Your task to perform on an android device: change notification settings in the gmail app Image 0: 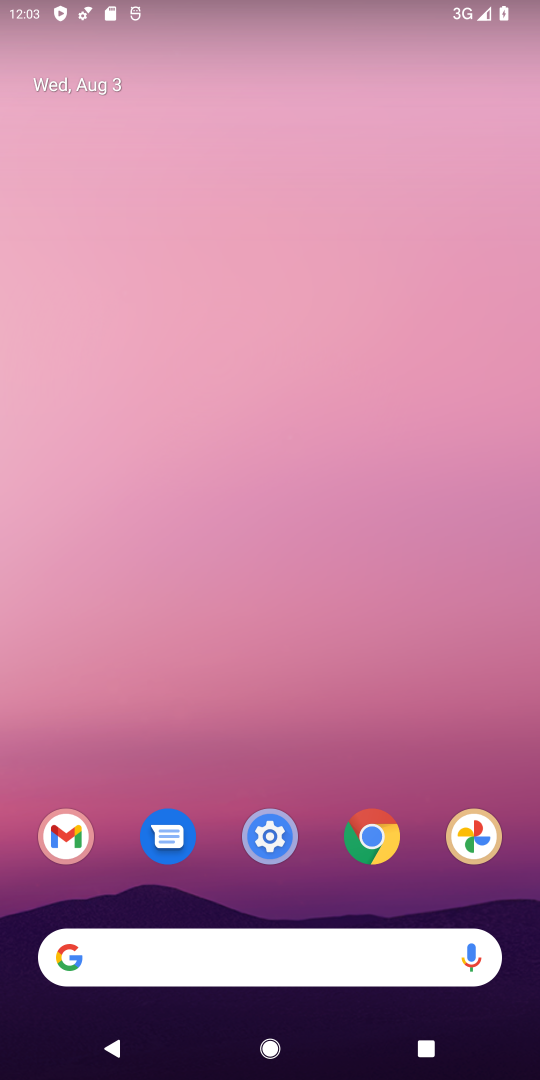
Step 0: drag from (184, 861) to (326, 207)
Your task to perform on an android device: change notification settings in the gmail app Image 1: 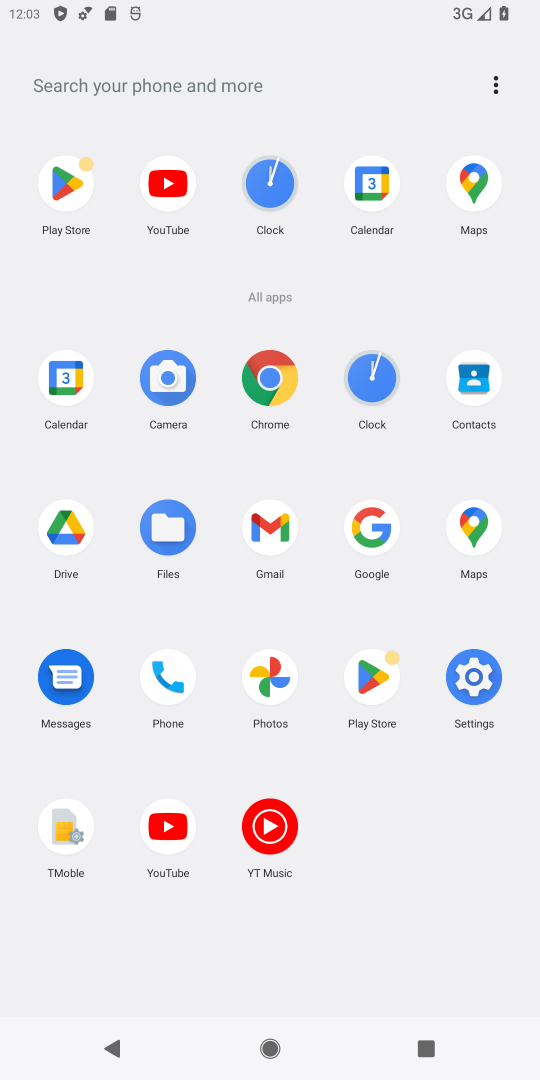
Step 1: click (269, 532)
Your task to perform on an android device: change notification settings in the gmail app Image 2: 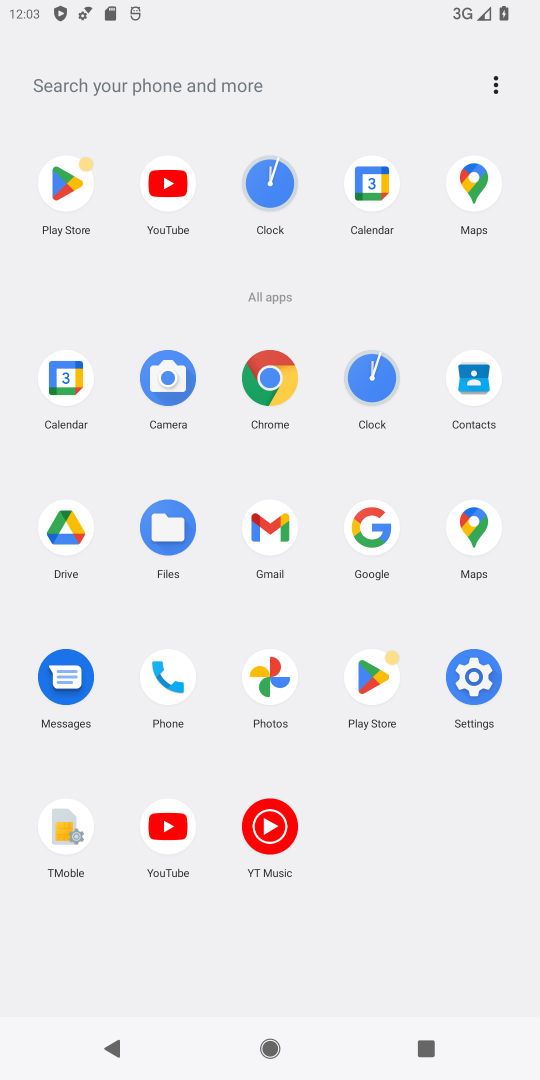
Step 2: click (269, 532)
Your task to perform on an android device: change notification settings in the gmail app Image 3: 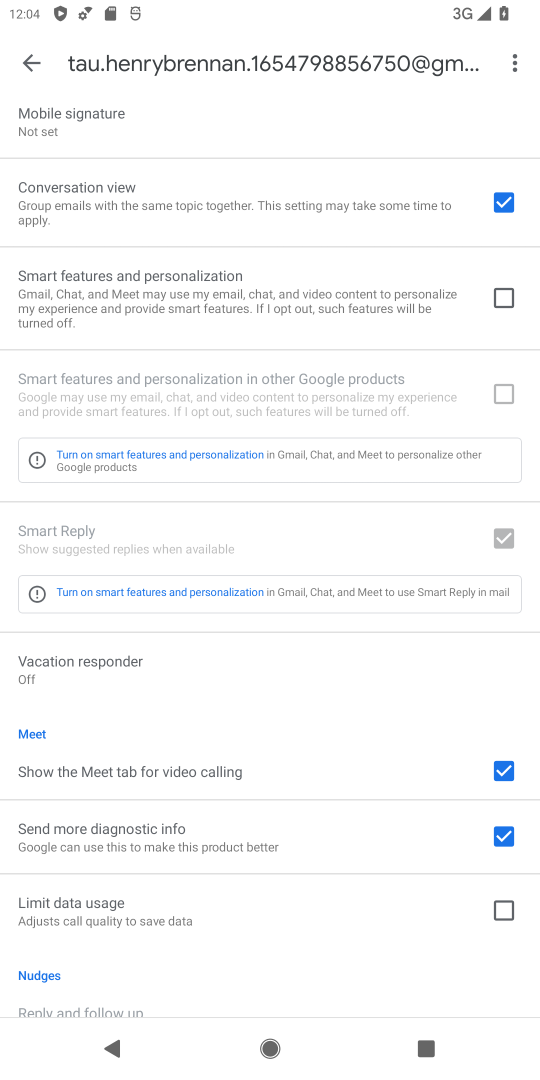
Step 3: drag from (191, 953) to (291, 499)
Your task to perform on an android device: change notification settings in the gmail app Image 4: 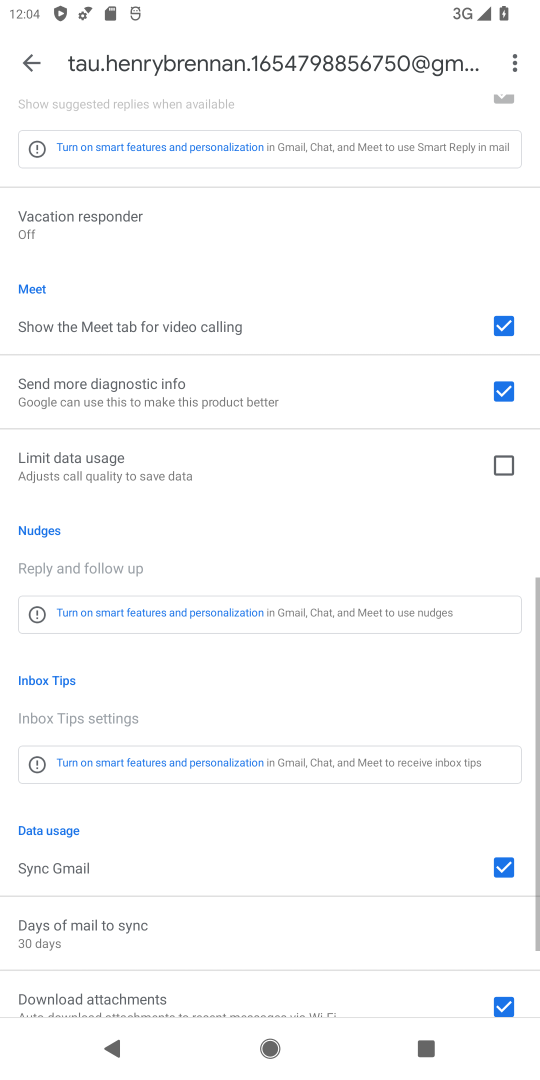
Step 4: drag from (349, 649) to (292, 1062)
Your task to perform on an android device: change notification settings in the gmail app Image 5: 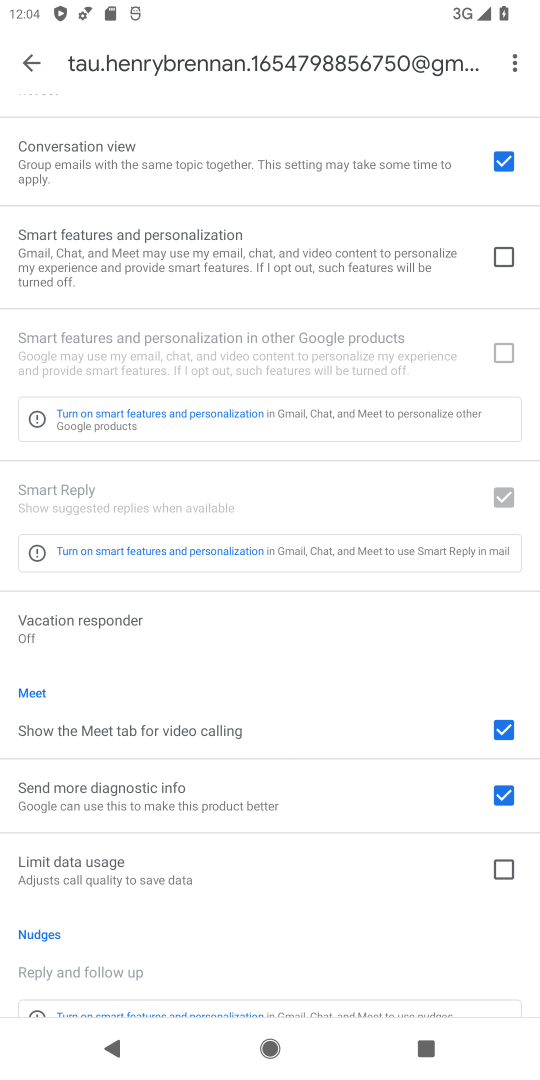
Step 5: drag from (402, 480) to (383, 1055)
Your task to perform on an android device: change notification settings in the gmail app Image 6: 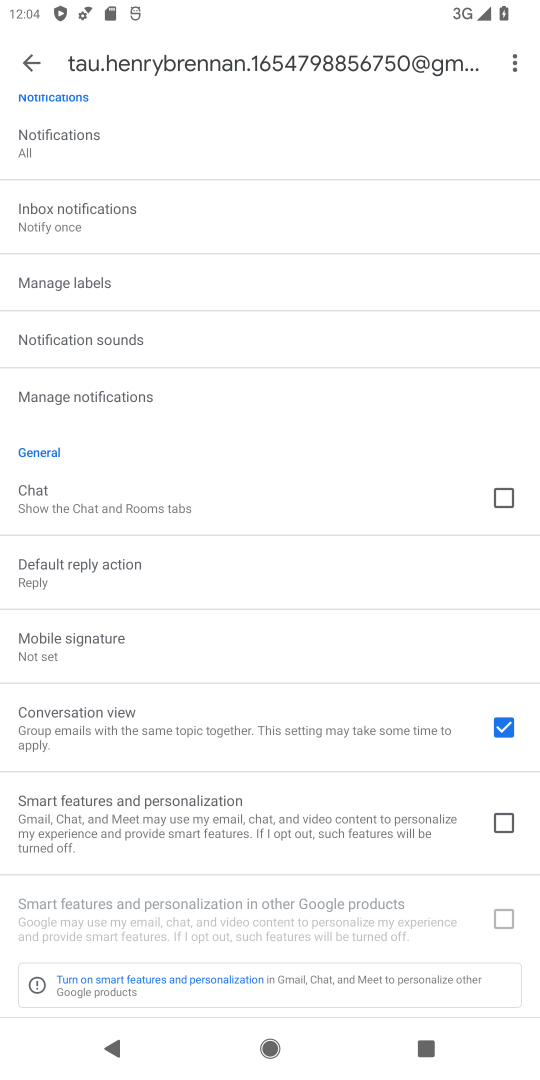
Step 6: click (157, 393)
Your task to perform on an android device: change notification settings in the gmail app Image 7: 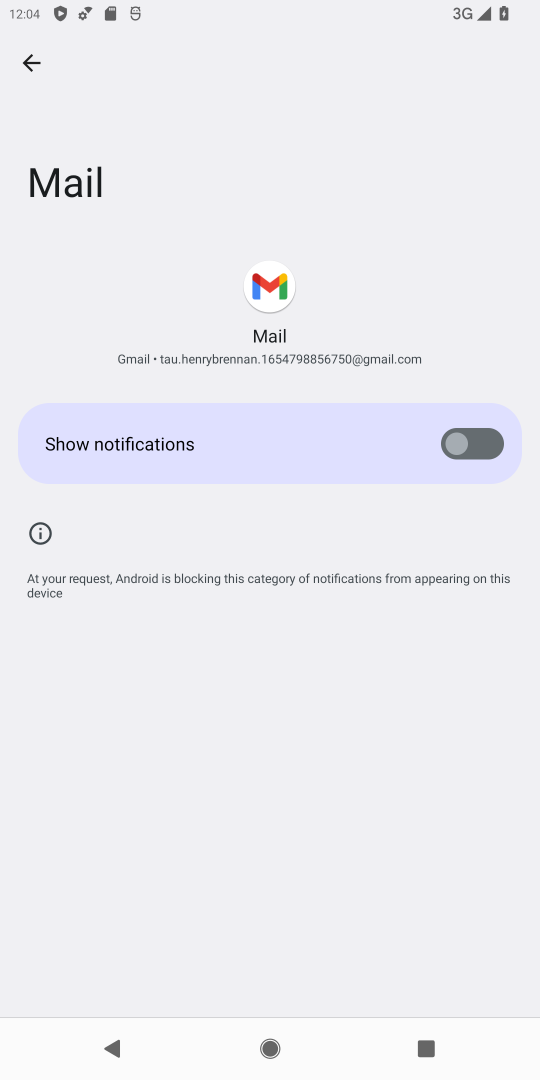
Step 7: drag from (322, 733) to (460, 316)
Your task to perform on an android device: change notification settings in the gmail app Image 8: 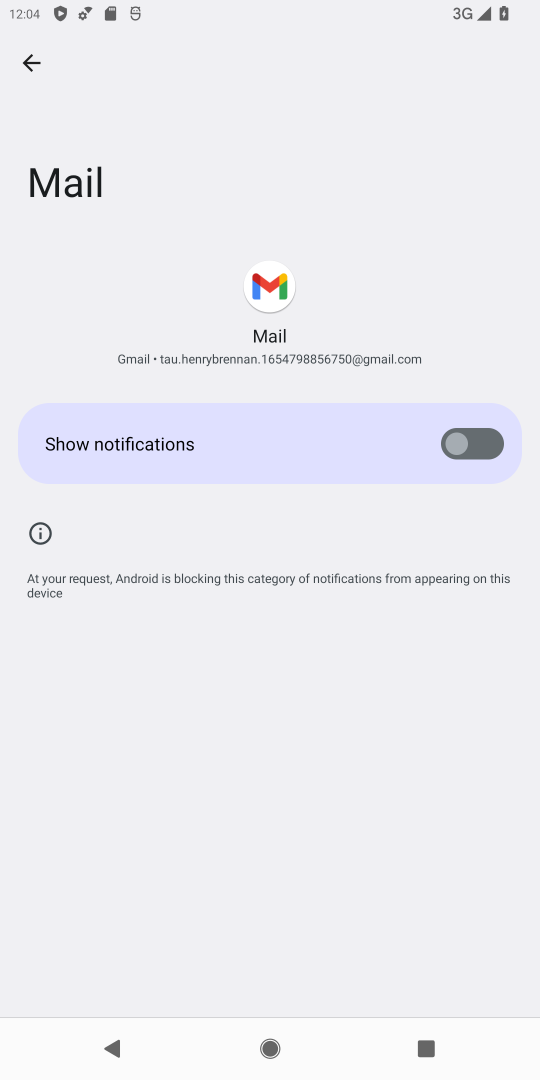
Step 8: drag from (195, 866) to (205, 431)
Your task to perform on an android device: change notification settings in the gmail app Image 9: 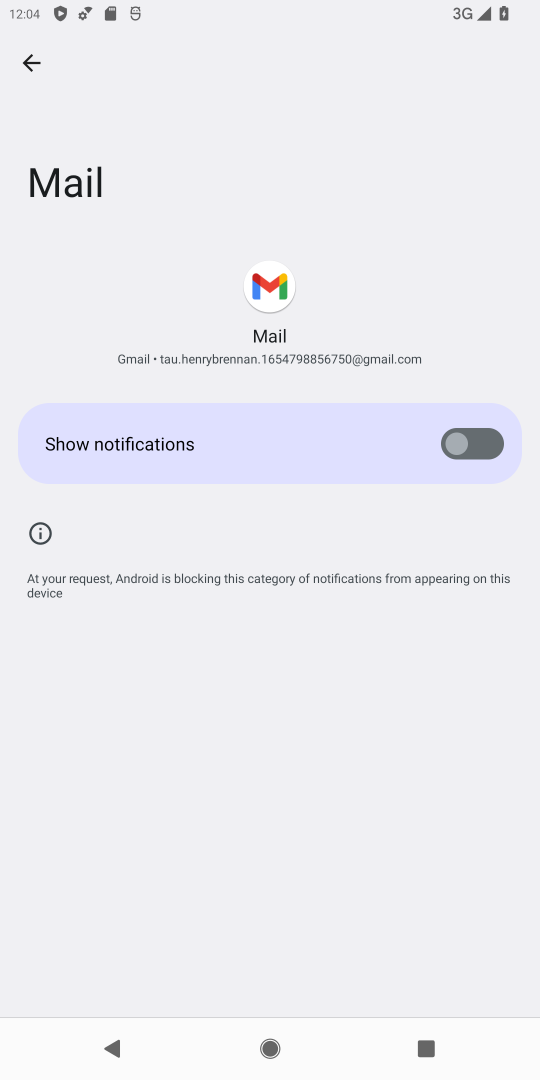
Step 9: drag from (197, 760) to (237, 382)
Your task to perform on an android device: change notification settings in the gmail app Image 10: 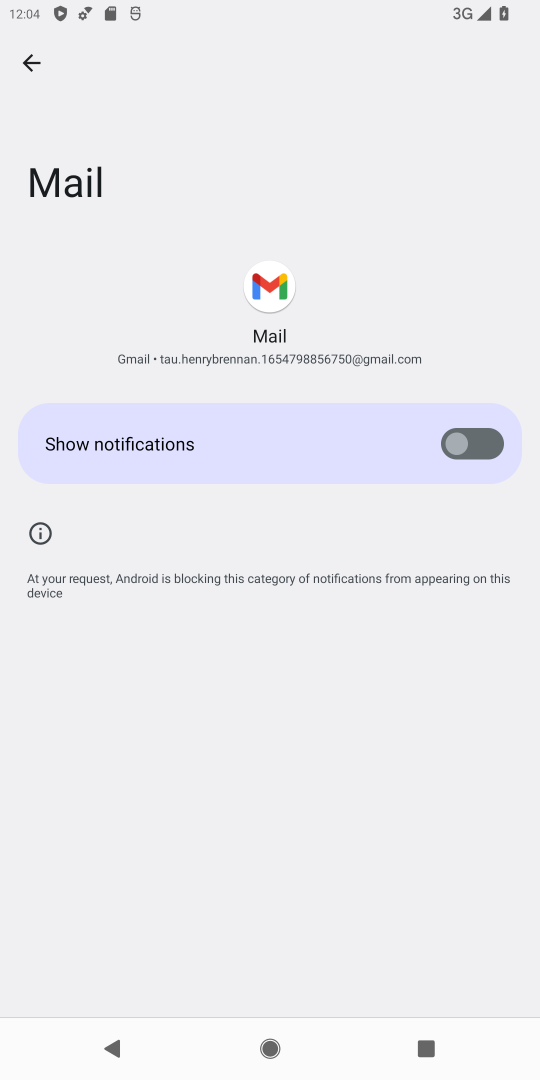
Step 10: click (460, 437)
Your task to perform on an android device: change notification settings in the gmail app Image 11: 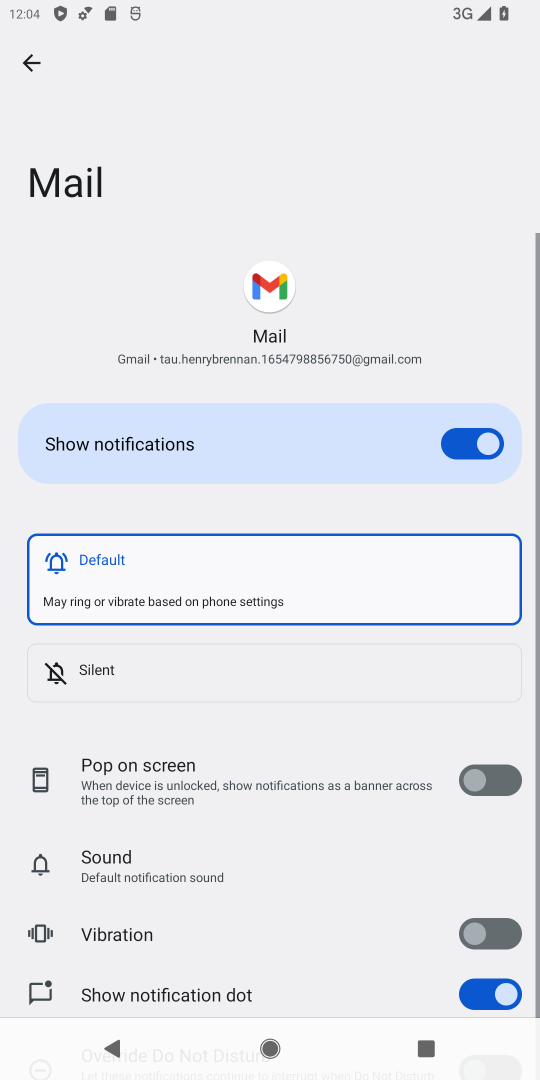
Step 11: task complete